Your task to perform on an android device: Open Google Maps and go to "Timeline" Image 0: 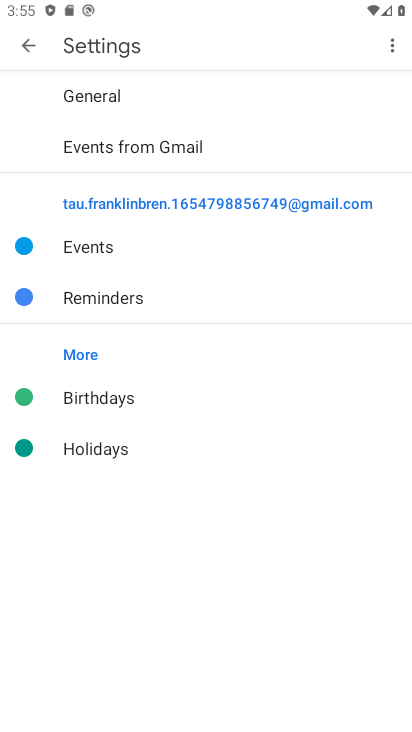
Step 0: press home button
Your task to perform on an android device: Open Google Maps and go to "Timeline" Image 1: 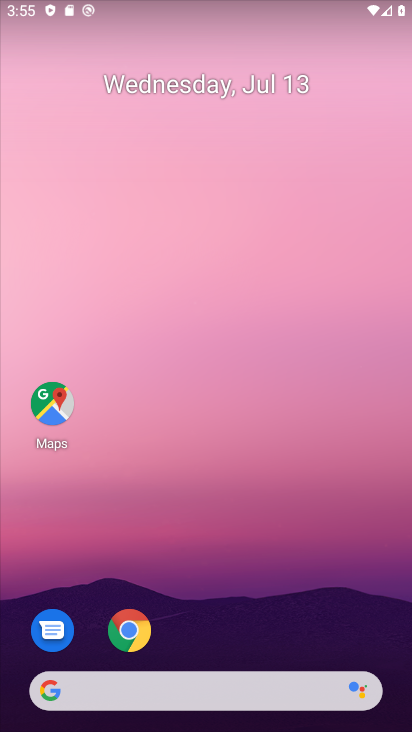
Step 1: drag from (206, 642) to (242, 5)
Your task to perform on an android device: Open Google Maps and go to "Timeline" Image 2: 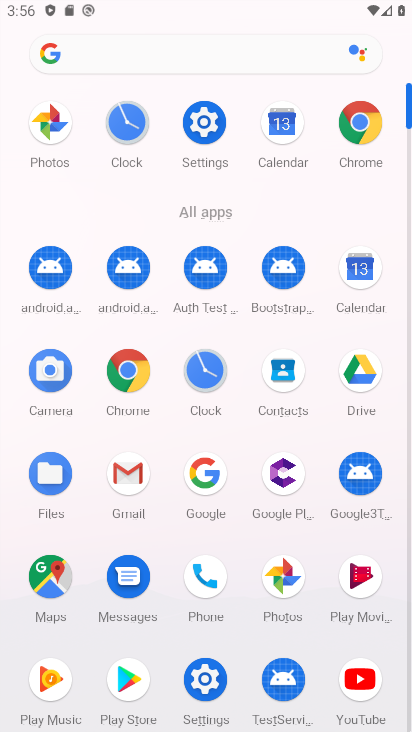
Step 2: click (49, 574)
Your task to perform on an android device: Open Google Maps and go to "Timeline" Image 3: 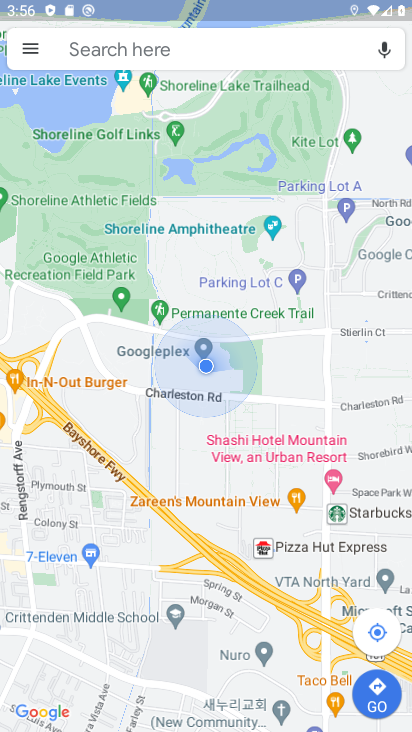
Step 3: click (26, 49)
Your task to perform on an android device: Open Google Maps and go to "Timeline" Image 4: 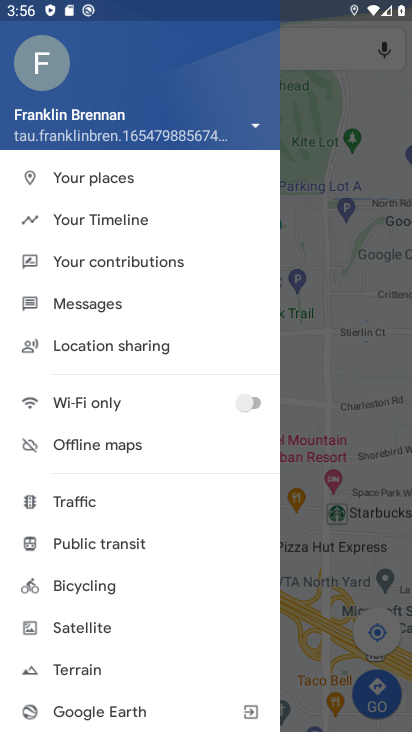
Step 4: click (93, 221)
Your task to perform on an android device: Open Google Maps and go to "Timeline" Image 5: 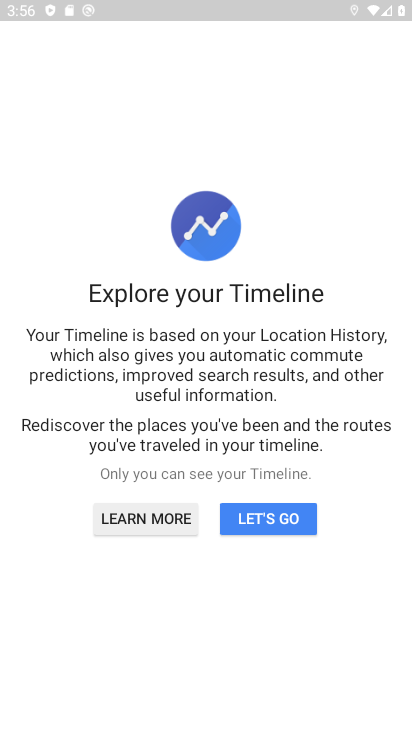
Step 5: click (268, 516)
Your task to perform on an android device: Open Google Maps and go to "Timeline" Image 6: 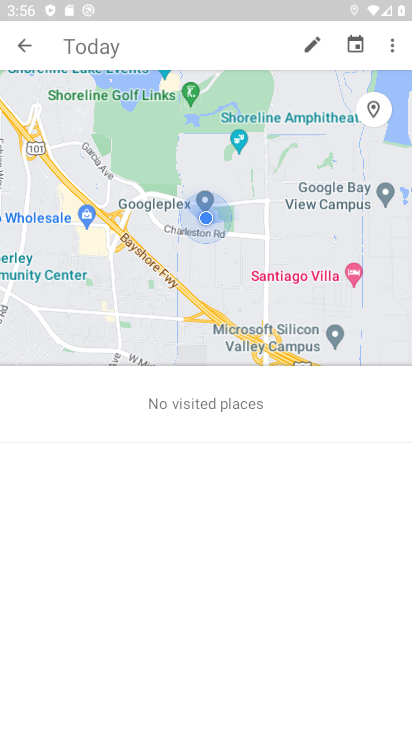
Step 6: task complete